Your task to perform on an android device: Open the phone app and click the voicemail tab. Image 0: 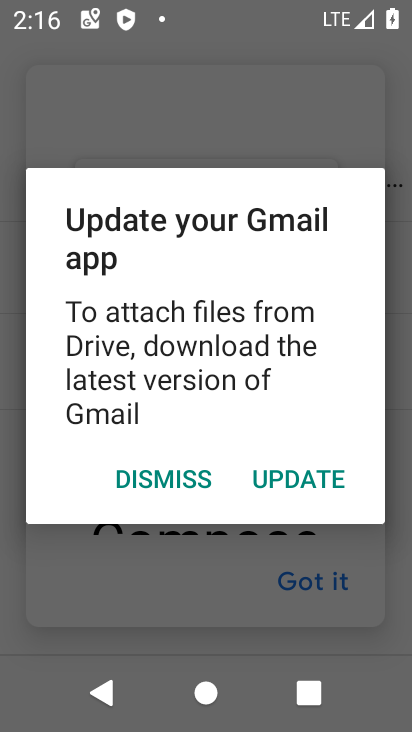
Step 0: press home button
Your task to perform on an android device: Open the phone app and click the voicemail tab. Image 1: 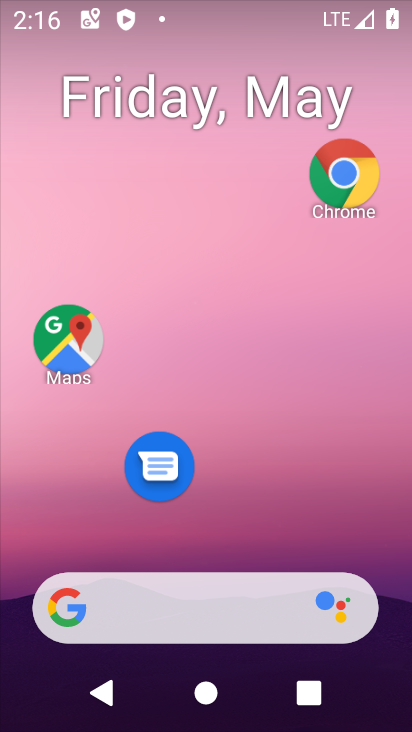
Step 1: drag from (268, 504) to (235, 24)
Your task to perform on an android device: Open the phone app and click the voicemail tab. Image 2: 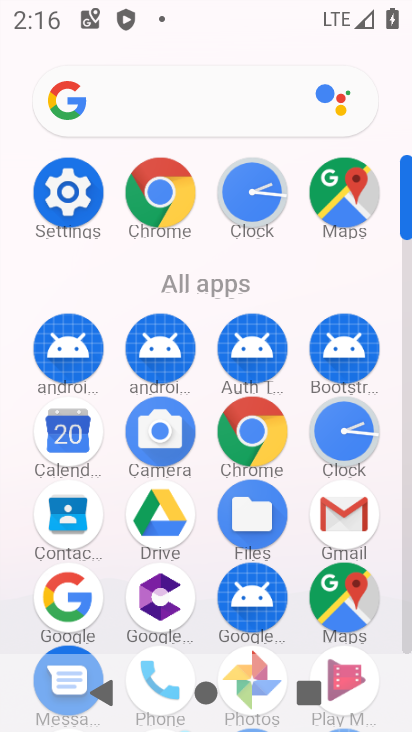
Step 2: drag from (286, 312) to (261, 46)
Your task to perform on an android device: Open the phone app and click the voicemail tab. Image 3: 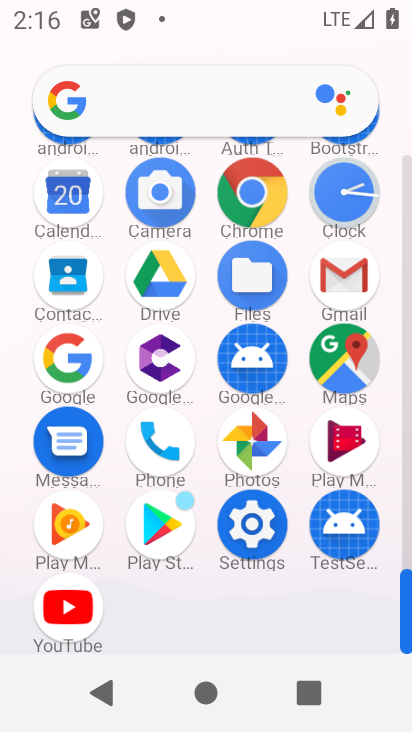
Step 3: click (146, 582)
Your task to perform on an android device: Open the phone app and click the voicemail tab. Image 4: 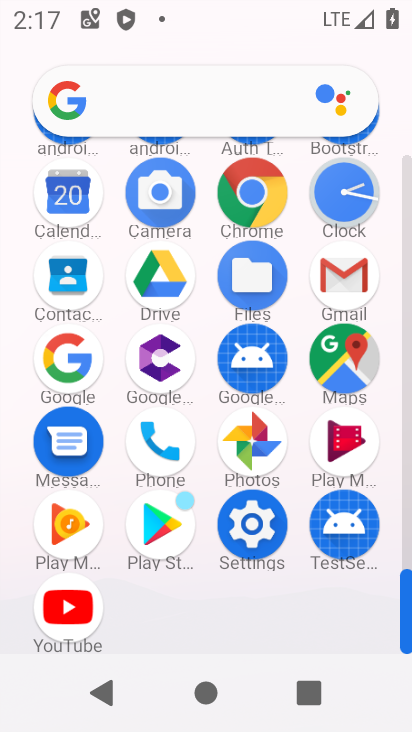
Step 4: click (157, 439)
Your task to perform on an android device: Open the phone app and click the voicemail tab. Image 5: 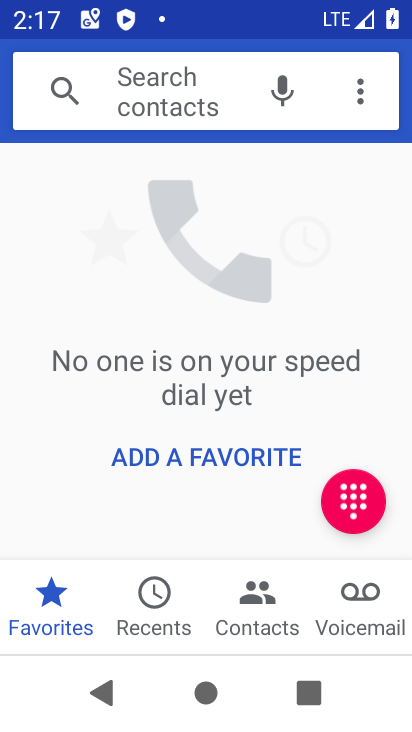
Step 5: click (367, 599)
Your task to perform on an android device: Open the phone app and click the voicemail tab. Image 6: 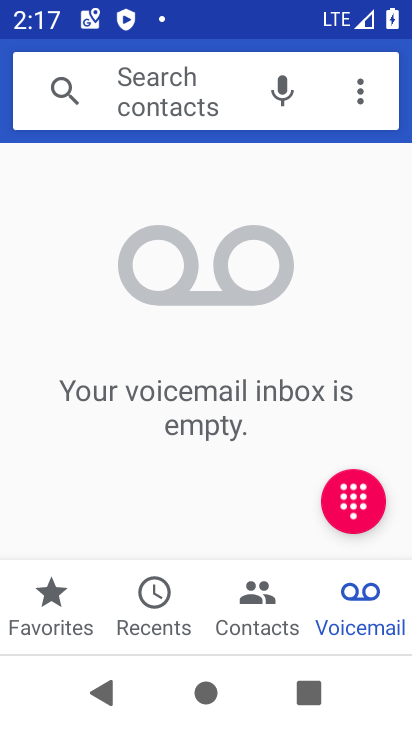
Step 6: task complete